Your task to perform on an android device: Go to location settings Image 0: 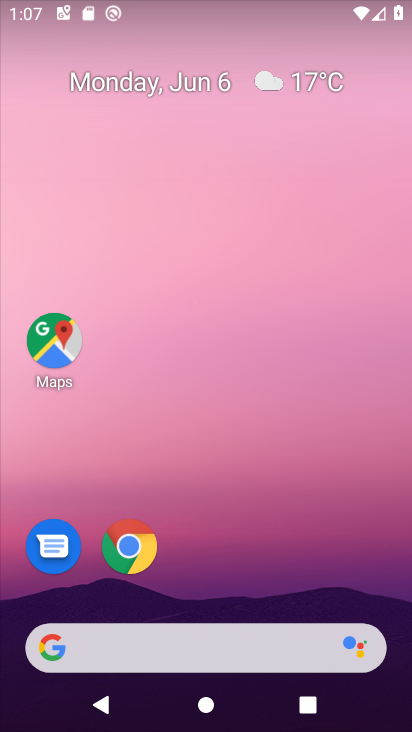
Step 0: drag from (169, 645) to (107, 15)
Your task to perform on an android device: Go to location settings Image 1: 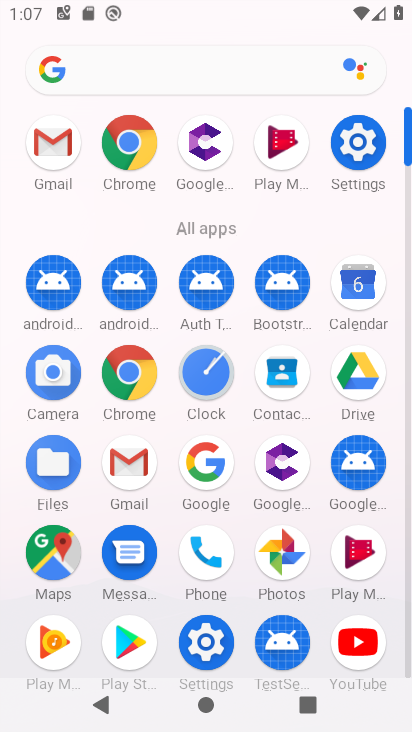
Step 1: click (357, 149)
Your task to perform on an android device: Go to location settings Image 2: 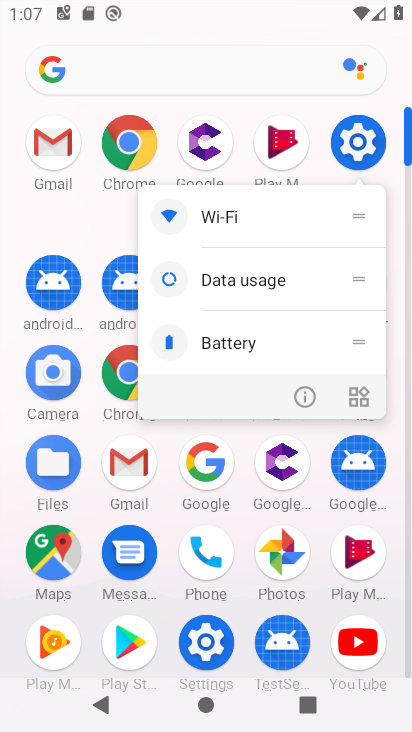
Step 2: click (357, 149)
Your task to perform on an android device: Go to location settings Image 3: 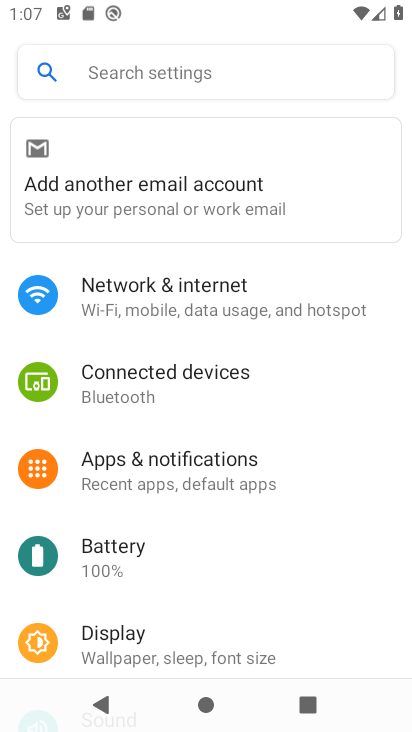
Step 3: drag from (153, 561) to (56, 6)
Your task to perform on an android device: Go to location settings Image 4: 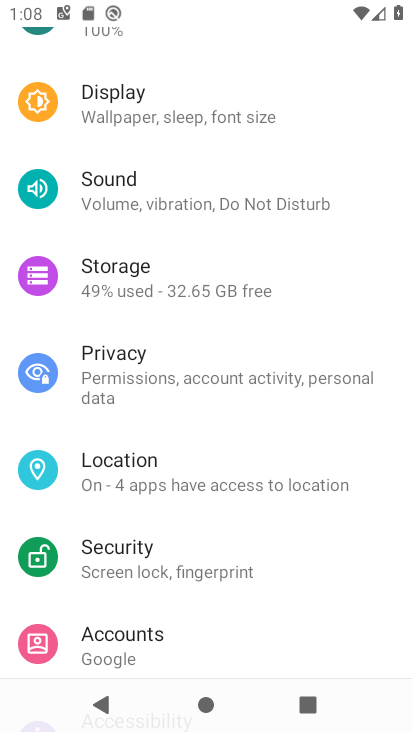
Step 4: click (200, 473)
Your task to perform on an android device: Go to location settings Image 5: 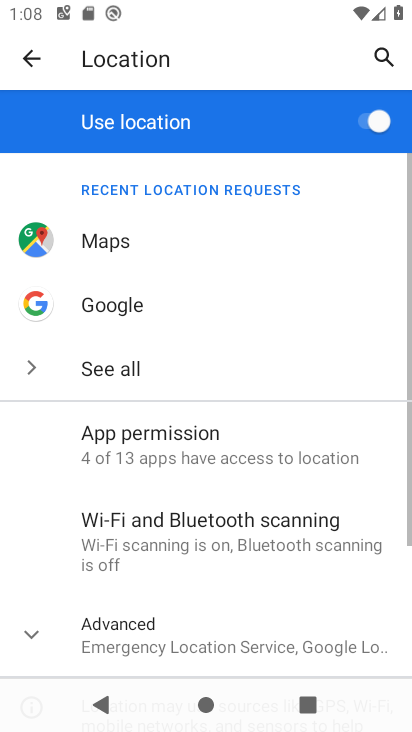
Step 5: task complete